Your task to perform on an android device: Go to notification settings Image 0: 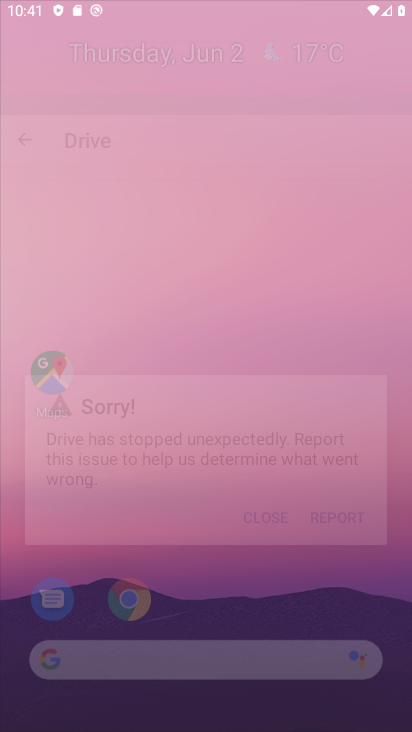
Step 0: click (245, 293)
Your task to perform on an android device: Go to notification settings Image 1: 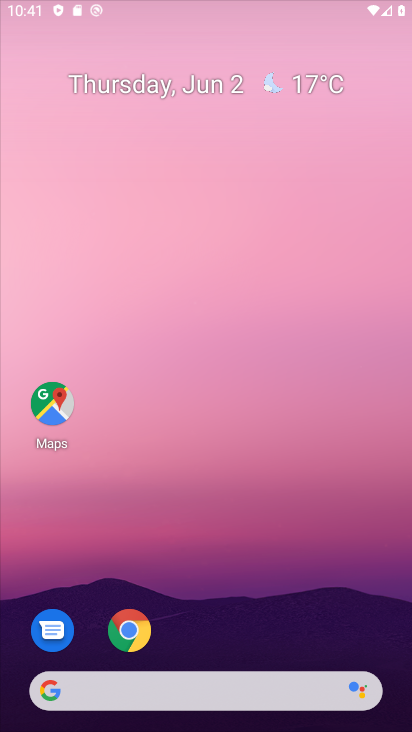
Step 1: click (139, 630)
Your task to perform on an android device: Go to notification settings Image 2: 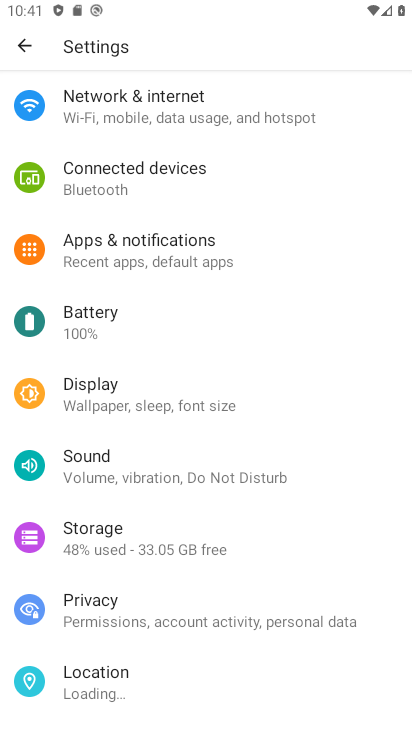
Step 2: click (200, 256)
Your task to perform on an android device: Go to notification settings Image 3: 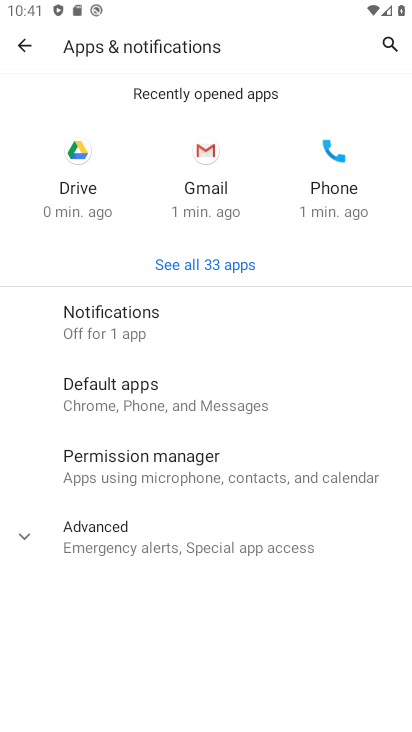
Step 3: click (123, 336)
Your task to perform on an android device: Go to notification settings Image 4: 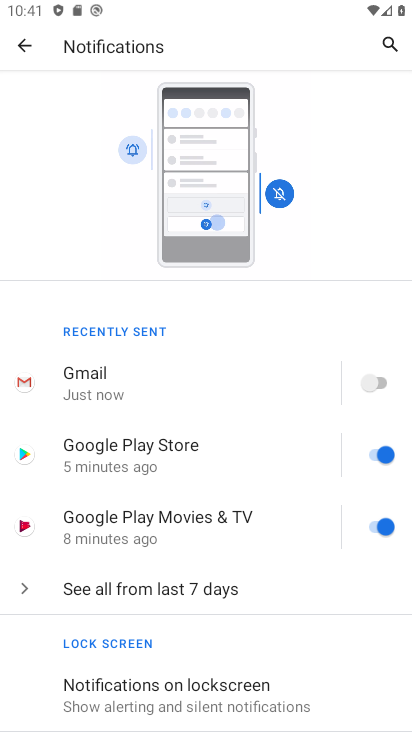
Step 4: task complete